Your task to perform on an android device: Check the settings for the Google Chrome app Image 0: 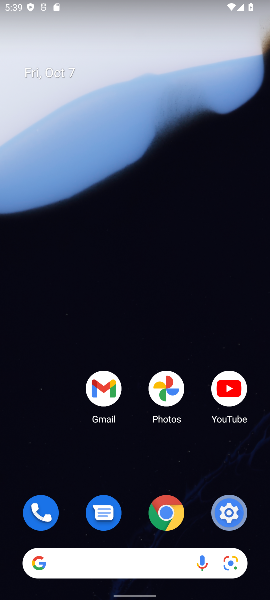
Step 0: click (163, 517)
Your task to perform on an android device: Check the settings for the Google Chrome app Image 1: 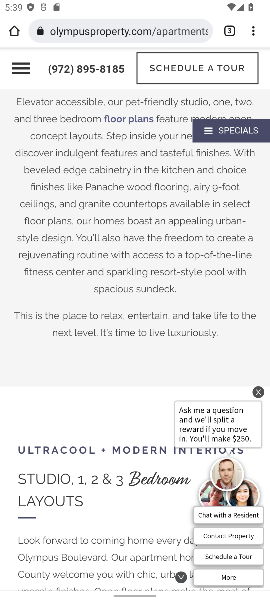
Step 1: click (255, 27)
Your task to perform on an android device: Check the settings for the Google Chrome app Image 2: 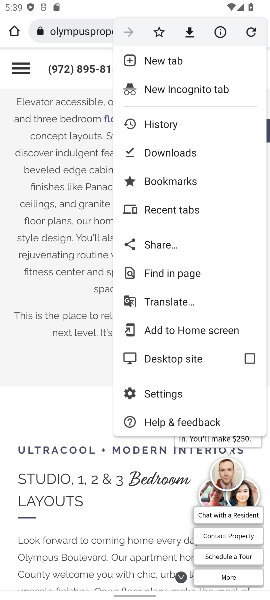
Step 2: click (173, 396)
Your task to perform on an android device: Check the settings for the Google Chrome app Image 3: 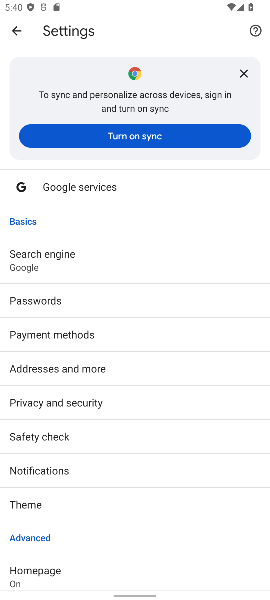
Step 3: task complete